Your task to perform on an android device: Go to calendar. Show me events next week Image 0: 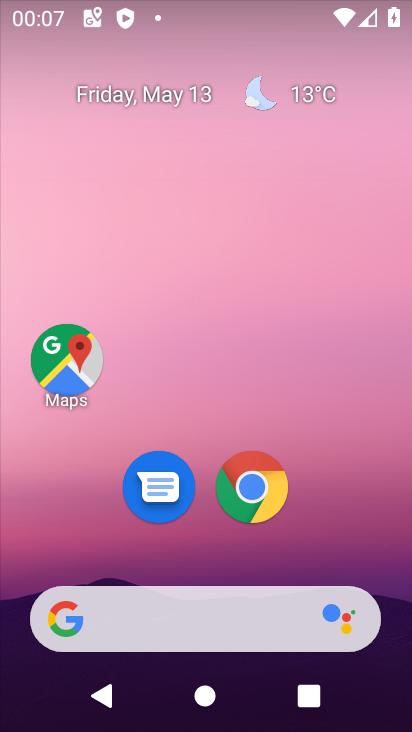
Step 0: click (177, 79)
Your task to perform on an android device: Go to calendar. Show me events next week Image 1: 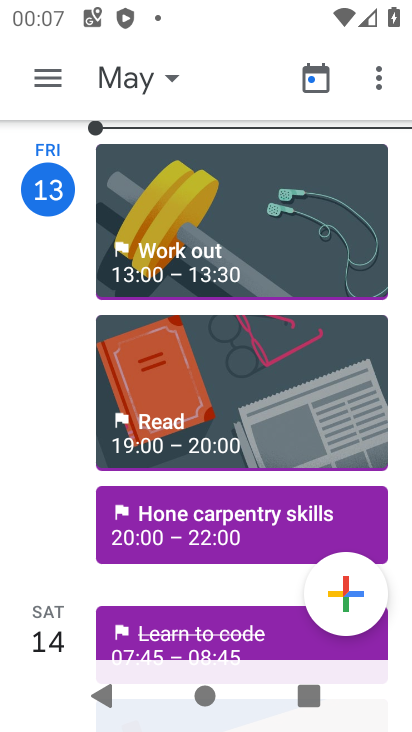
Step 1: click (177, 79)
Your task to perform on an android device: Go to calendar. Show me events next week Image 2: 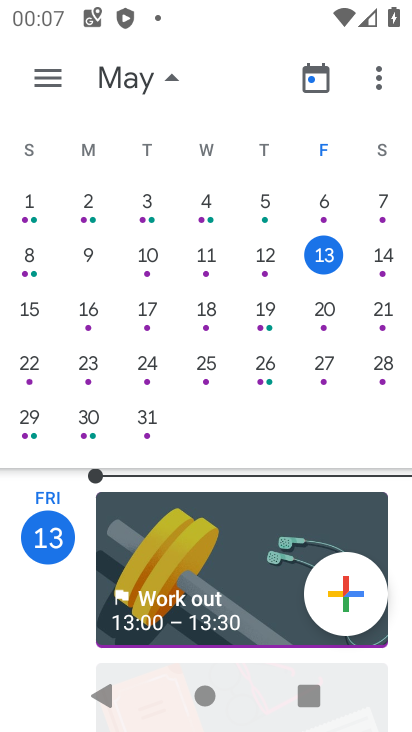
Step 2: click (271, 299)
Your task to perform on an android device: Go to calendar. Show me events next week Image 3: 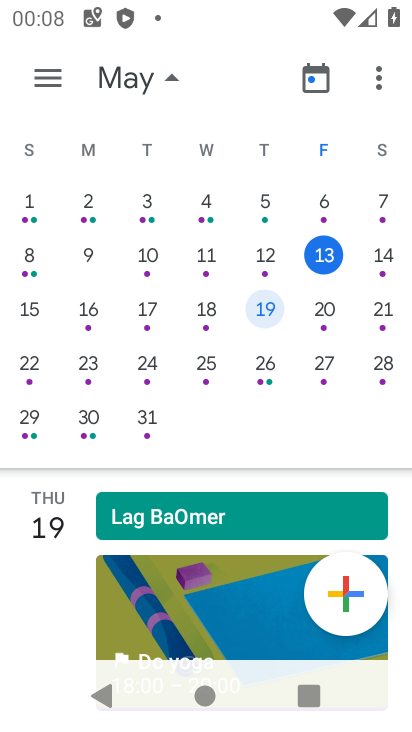
Step 3: task complete